Your task to perform on an android device: Go to internet settings Image 0: 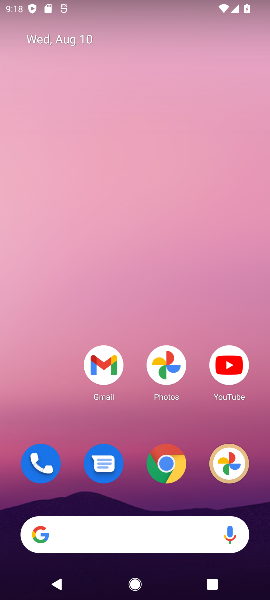
Step 0: drag from (22, 562) to (75, 227)
Your task to perform on an android device: Go to internet settings Image 1: 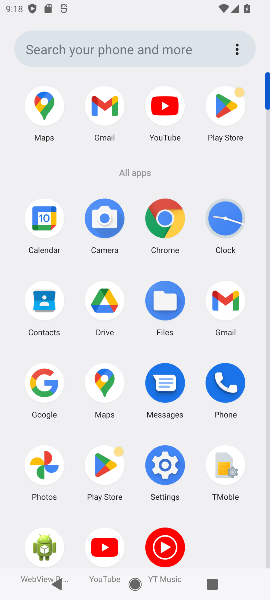
Step 1: click (151, 475)
Your task to perform on an android device: Go to internet settings Image 2: 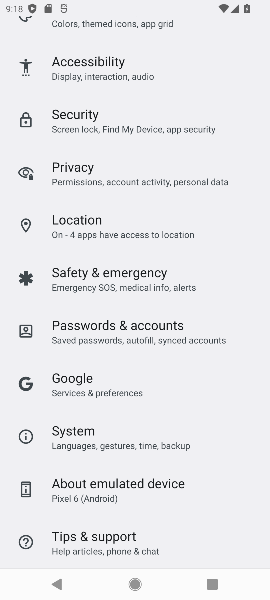
Step 2: drag from (185, 59) to (263, 464)
Your task to perform on an android device: Go to internet settings Image 3: 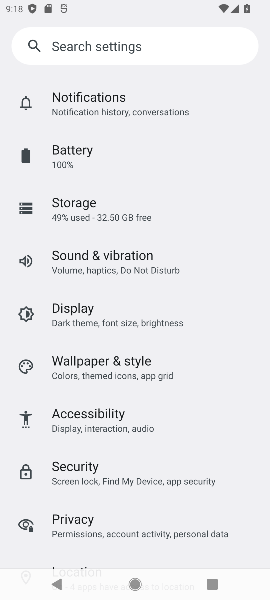
Step 3: drag from (224, 91) to (259, 302)
Your task to perform on an android device: Go to internet settings Image 4: 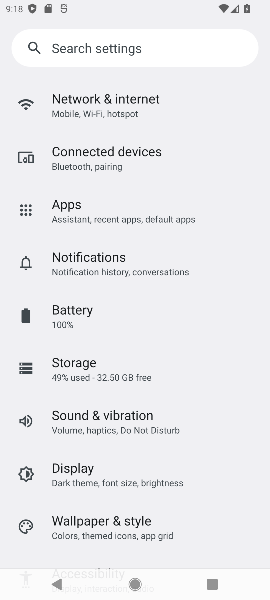
Step 4: click (115, 114)
Your task to perform on an android device: Go to internet settings Image 5: 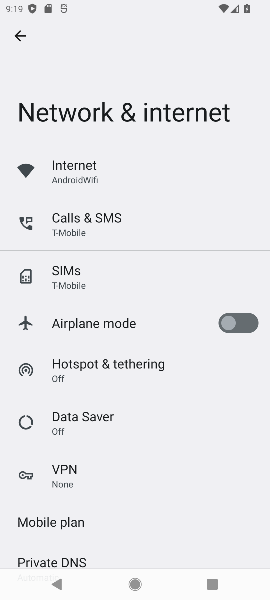
Step 5: task complete